Your task to perform on an android device: set default search engine in the chrome app Image 0: 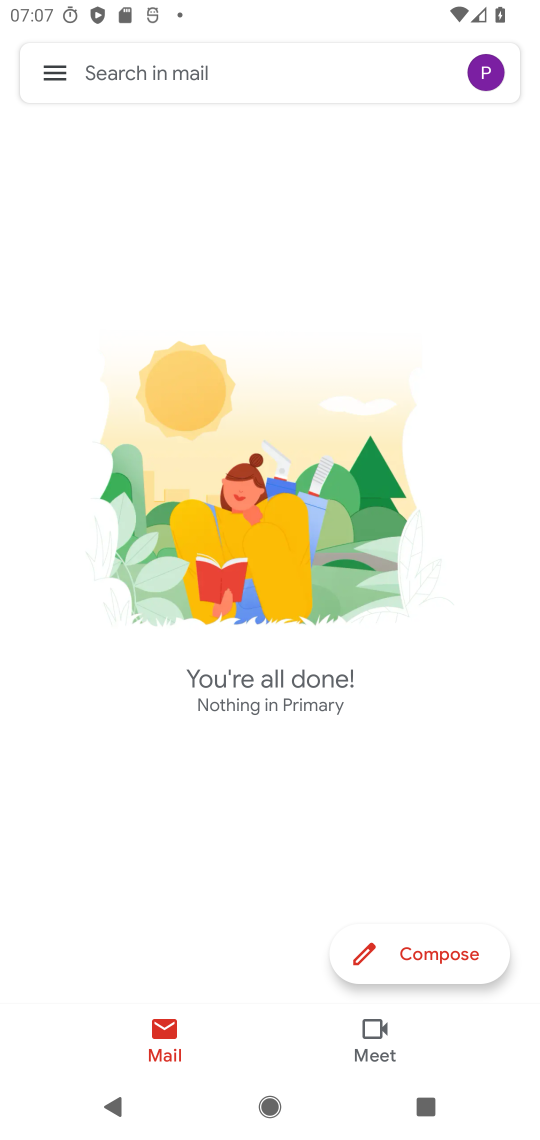
Step 0: press home button
Your task to perform on an android device: set default search engine in the chrome app Image 1: 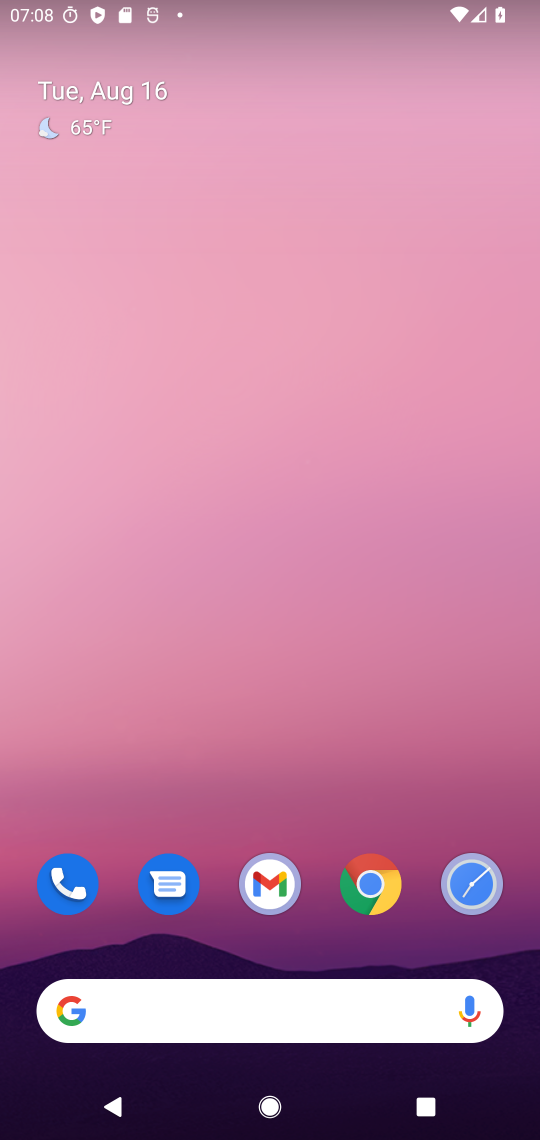
Step 1: click (360, 890)
Your task to perform on an android device: set default search engine in the chrome app Image 2: 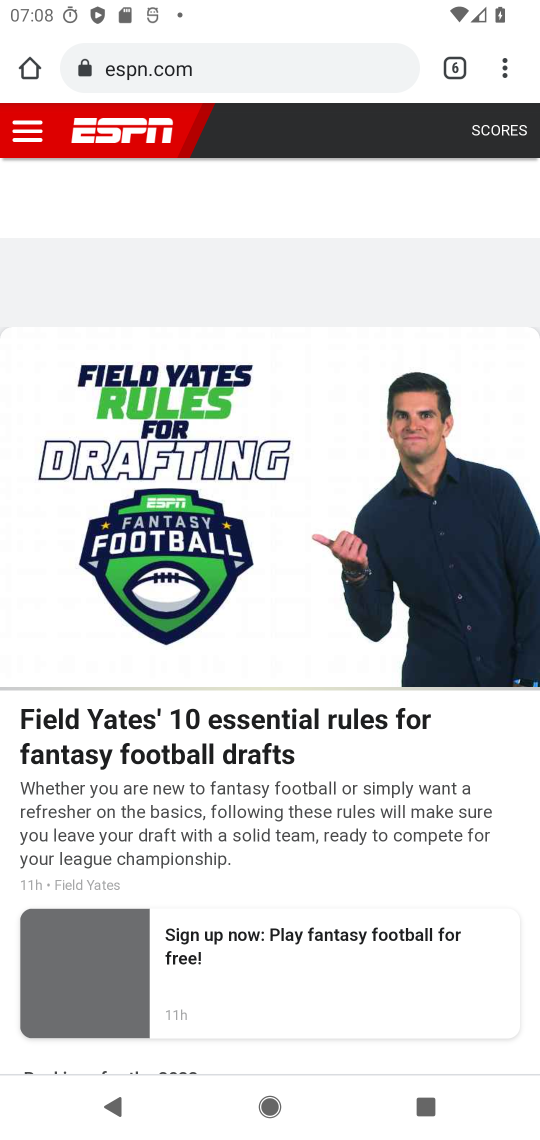
Step 2: drag from (510, 66) to (341, 840)
Your task to perform on an android device: set default search engine in the chrome app Image 3: 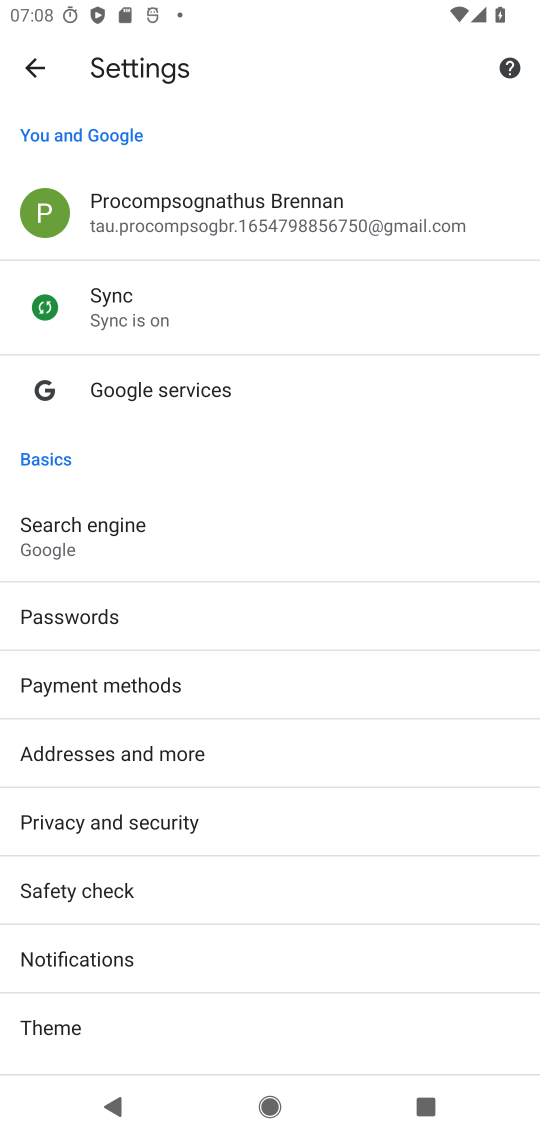
Step 3: click (118, 552)
Your task to perform on an android device: set default search engine in the chrome app Image 4: 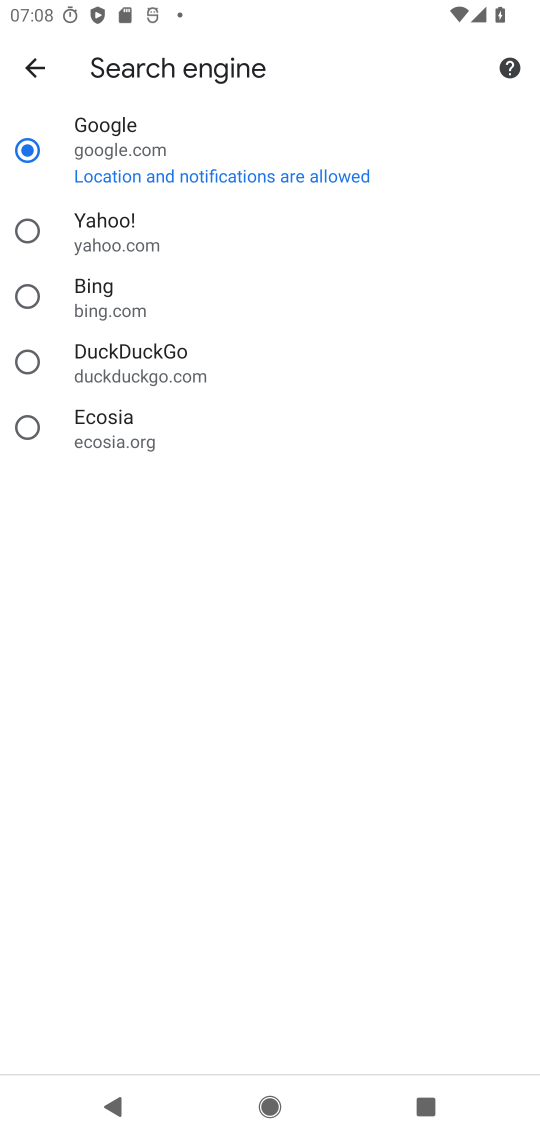
Step 4: task complete